Your task to perform on an android device: set an alarm Image 0: 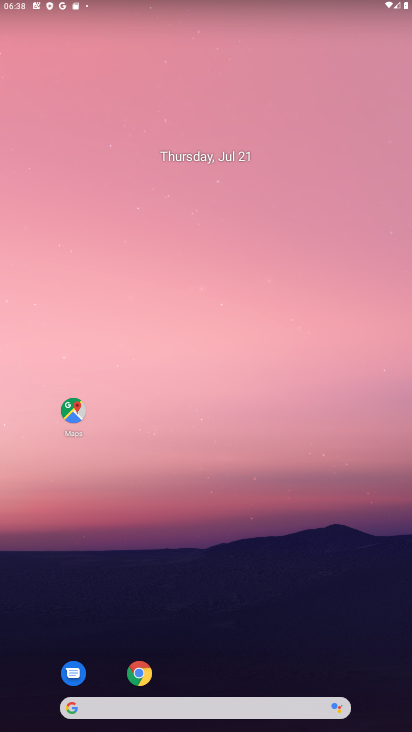
Step 0: drag from (170, 456) to (203, 164)
Your task to perform on an android device: set an alarm Image 1: 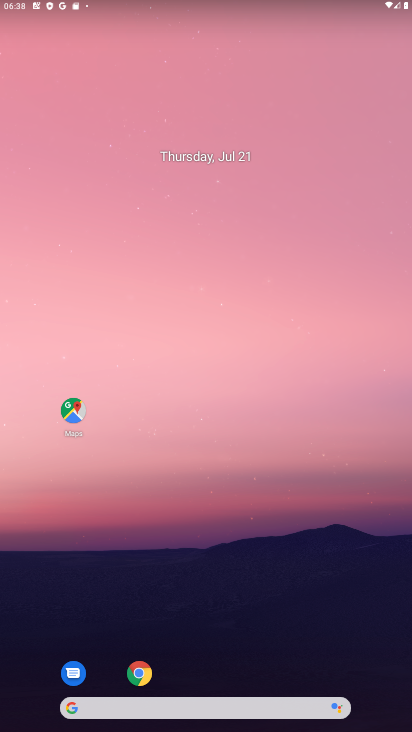
Step 1: drag from (176, 514) to (236, 82)
Your task to perform on an android device: set an alarm Image 2: 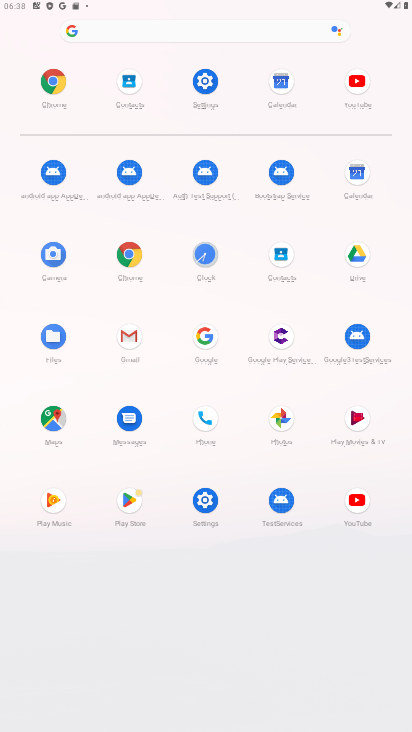
Step 2: click (204, 267)
Your task to perform on an android device: set an alarm Image 3: 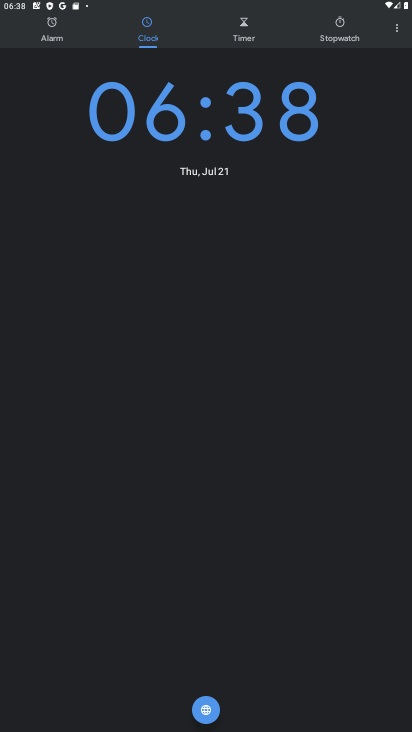
Step 3: click (48, 35)
Your task to perform on an android device: set an alarm Image 4: 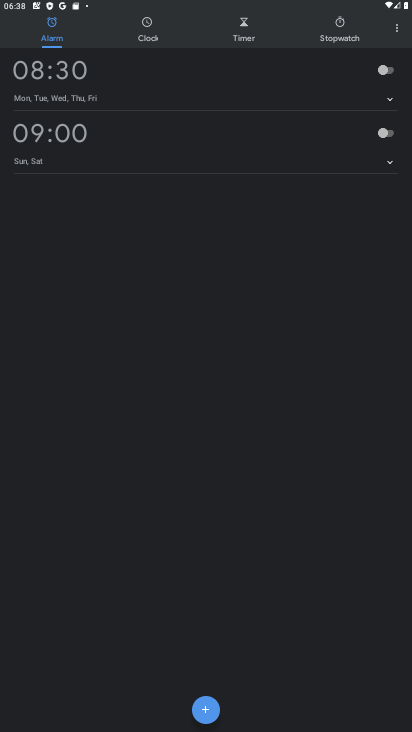
Step 4: click (387, 74)
Your task to perform on an android device: set an alarm Image 5: 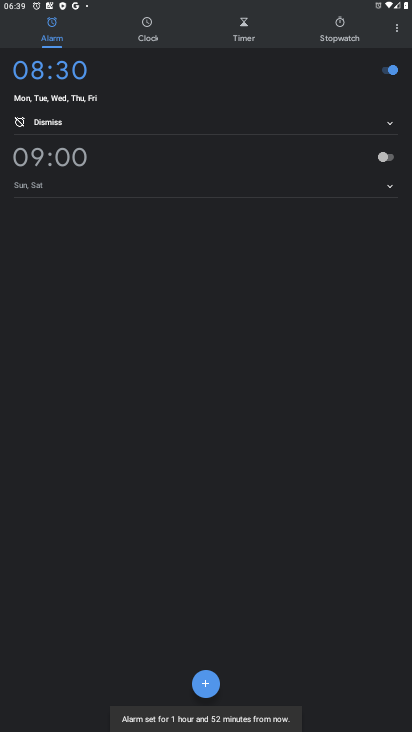
Step 5: task complete